Your task to perform on an android device: check battery use Image 0: 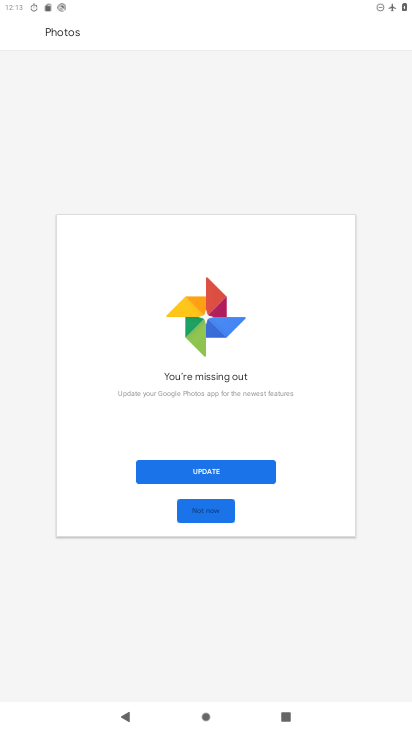
Step 0: press home button
Your task to perform on an android device: check battery use Image 1: 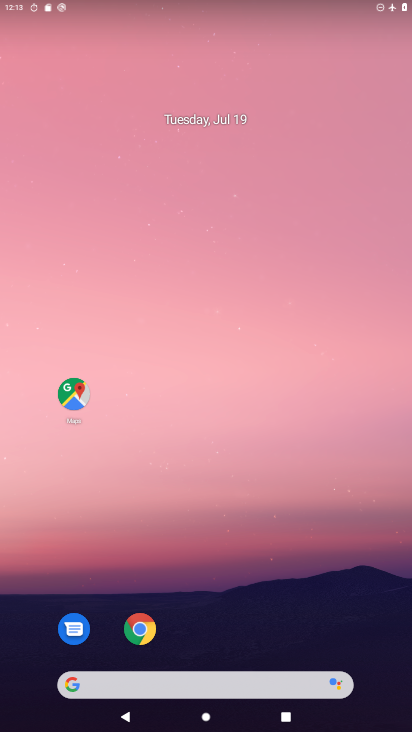
Step 1: drag from (290, 600) to (268, 91)
Your task to perform on an android device: check battery use Image 2: 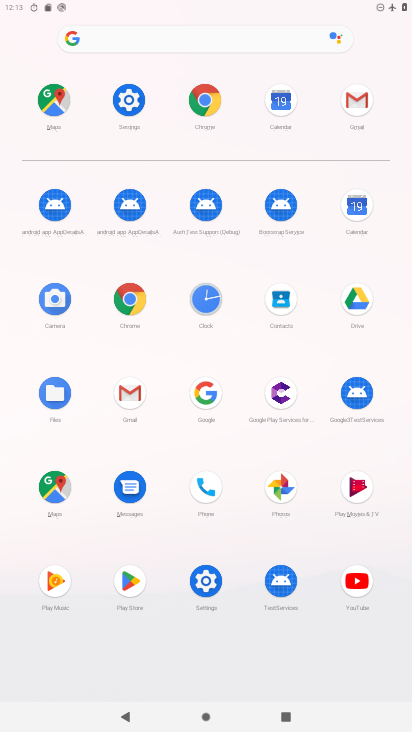
Step 2: click (131, 95)
Your task to perform on an android device: check battery use Image 3: 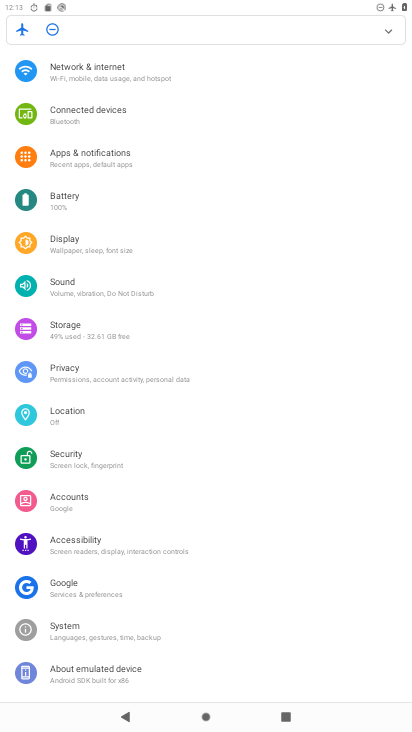
Step 3: click (69, 201)
Your task to perform on an android device: check battery use Image 4: 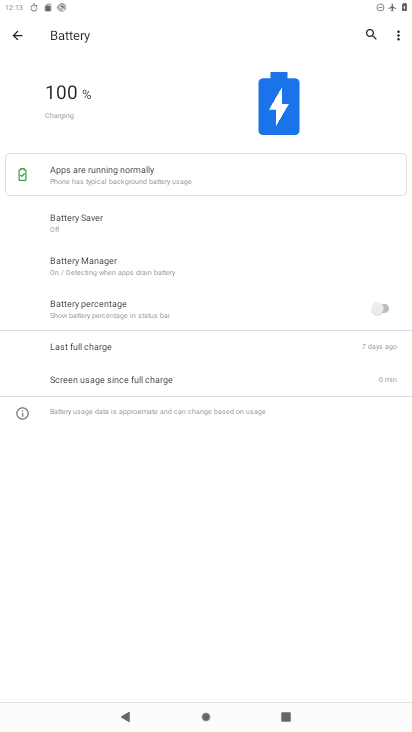
Step 4: click (396, 30)
Your task to perform on an android device: check battery use Image 5: 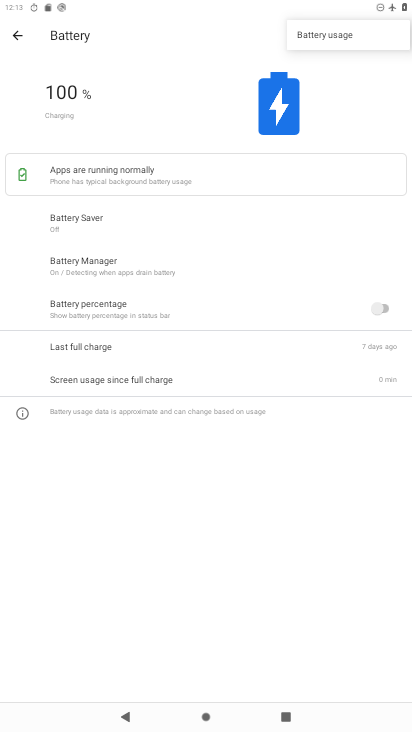
Step 5: click (332, 33)
Your task to perform on an android device: check battery use Image 6: 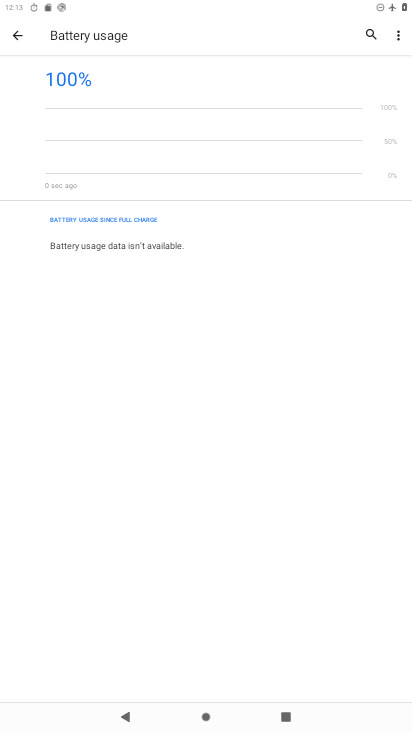
Step 6: task complete